Your task to perform on an android device: Is it going to rain this weekend? Image 0: 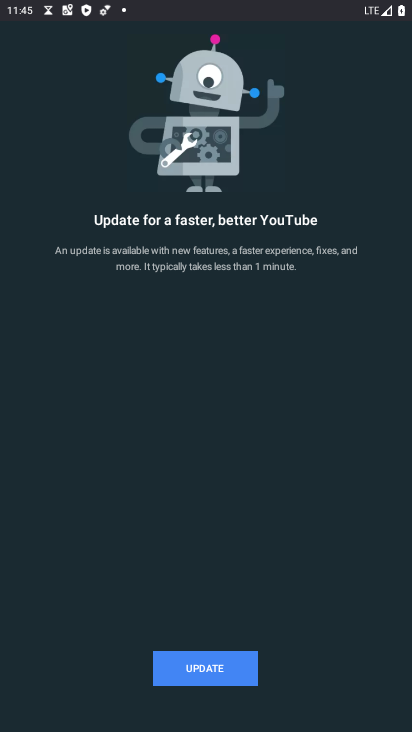
Step 0: press home button
Your task to perform on an android device: Is it going to rain this weekend? Image 1: 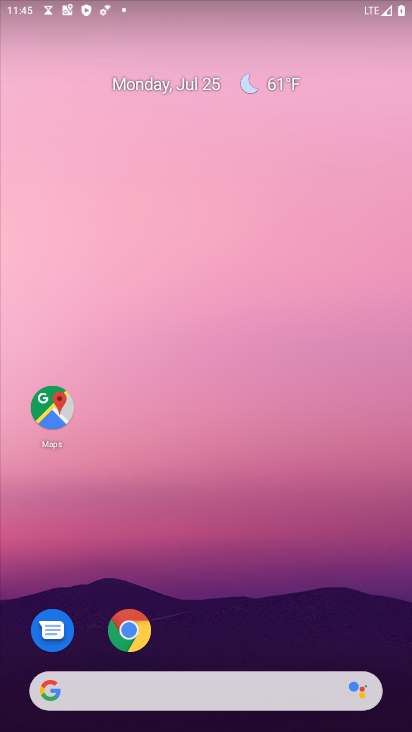
Step 1: click (219, 697)
Your task to perform on an android device: Is it going to rain this weekend? Image 2: 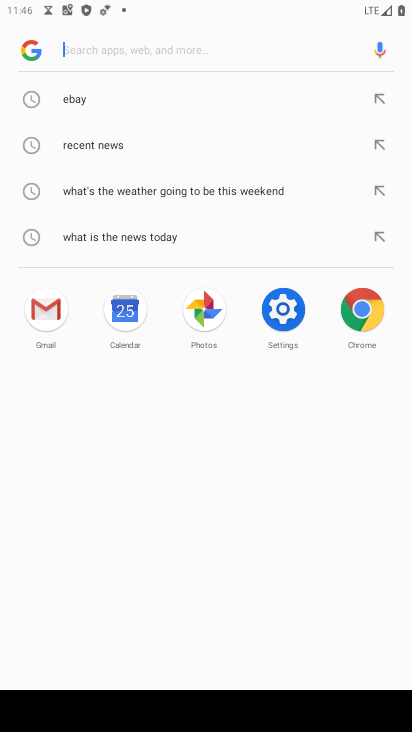
Step 2: type "is it going to rain this weekend"
Your task to perform on an android device: Is it going to rain this weekend? Image 3: 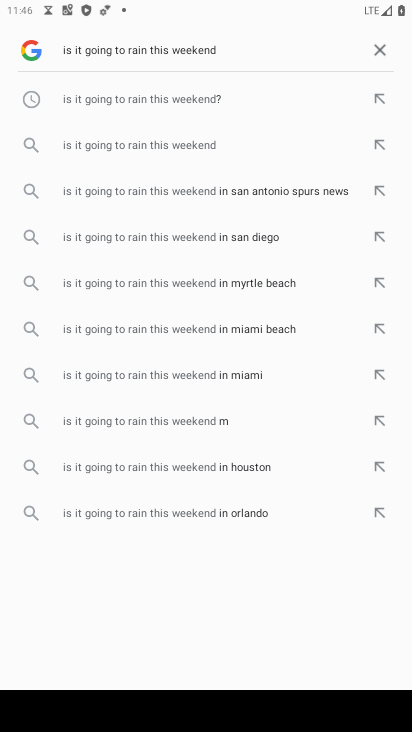
Step 3: click (186, 100)
Your task to perform on an android device: Is it going to rain this weekend? Image 4: 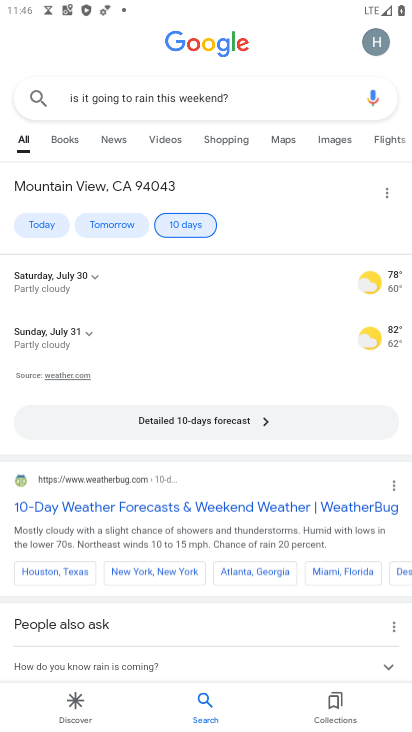
Step 4: task complete